Your task to perform on an android device: Go to Wikipedia Image 0: 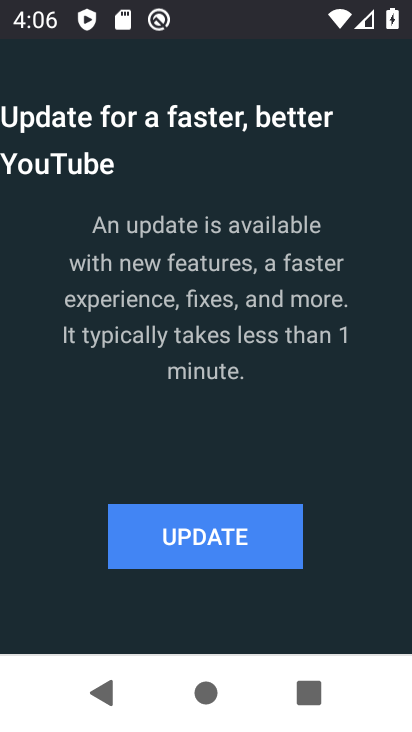
Step 0: press home button
Your task to perform on an android device: Go to Wikipedia Image 1: 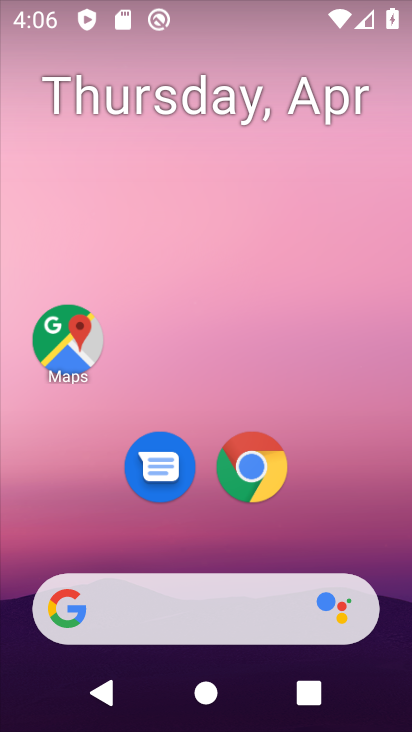
Step 1: click (262, 468)
Your task to perform on an android device: Go to Wikipedia Image 2: 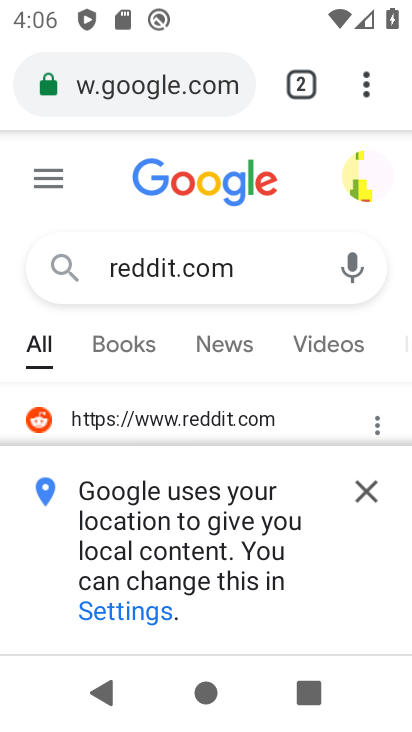
Step 2: click (363, 480)
Your task to perform on an android device: Go to Wikipedia Image 3: 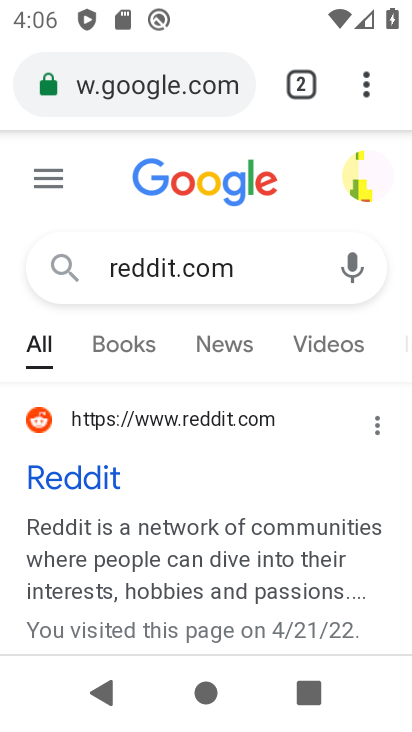
Step 3: click (116, 86)
Your task to perform on an android device: Go to Wikipedia Image 4: 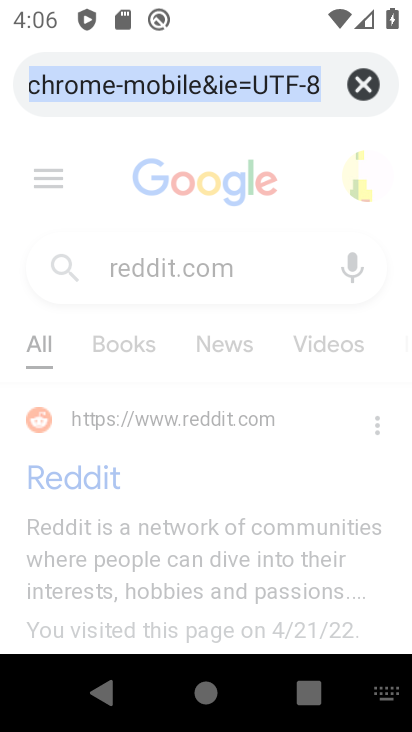
Step 4: type "wikipedia"
Your task to perform on an android device: Go to Wikipedia Image 5: 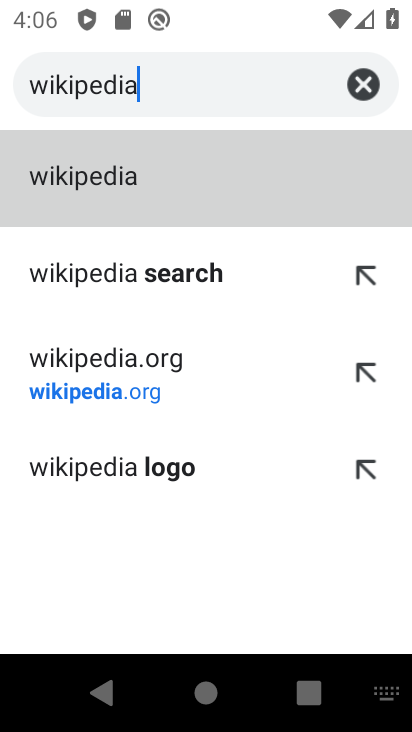
Step 5: click (95, 174)
Your task to perform on an android device: Go to Wikipedia Image 6: 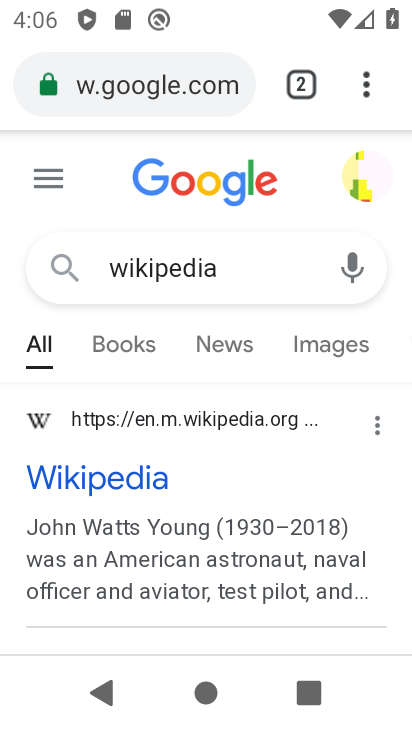
Step 6: task complete